Your task to perform on an android device: uninstall "Pandora - Music & Podcasts" Image 0: 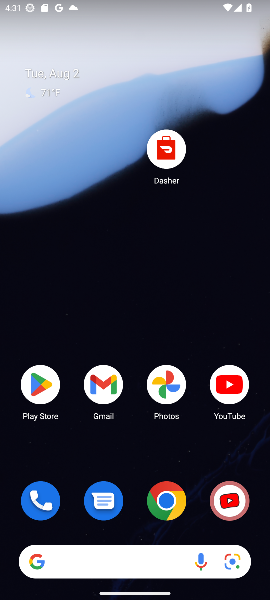
Step 0: click (41, 396)
Your task to perform on an android device: uninstall "Pandora - Music & Podcasts" Image 1: 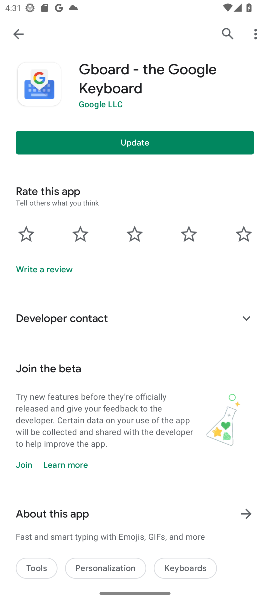
Step 1: click (223, 30)
Your task to perform on an android device: uninstall "Pandora - Music & Podcasts" Image 2: 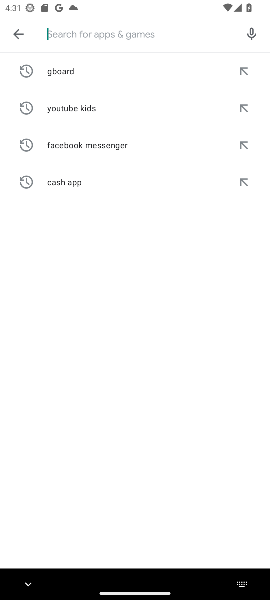
Step 2: type "Pandora - Music & Podcasts"
Your task to perform on an android device: uninstall "Pandora - Music & Podcasts" Image 3: 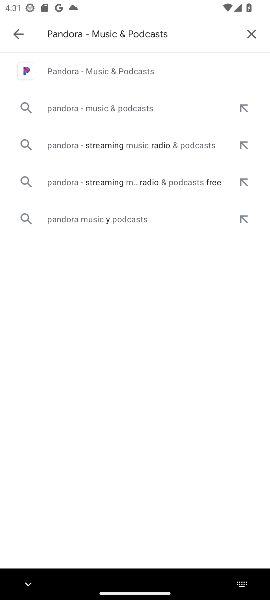
Step 3: click (96, 75)
Your task to perform on an android device: uninstall "Pandora - Music & Podcasts" Image 4: 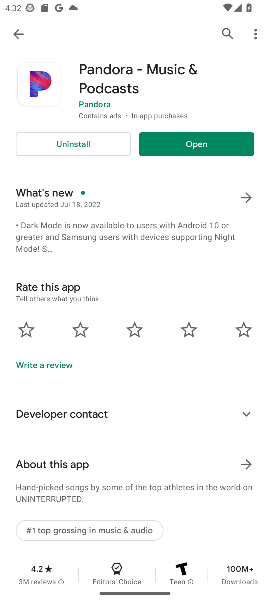
Step 4: click (58, 140)
Your task to perform on an android device: uninstall "Pandora - Music & Podcasts" Image 5: 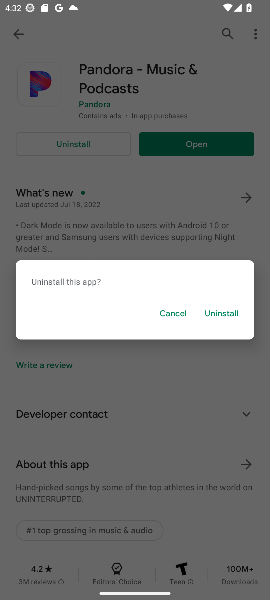
Step 5: click (230, 316)
Your task to perform on an android device: uninstall "Pandora - Music & Podcasts" Image 6: 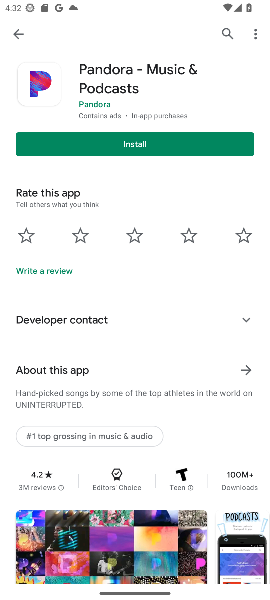
Step 6: task complete